Your task to perform on an android device: Search for seafood restaurants on Google Maps Image 0: 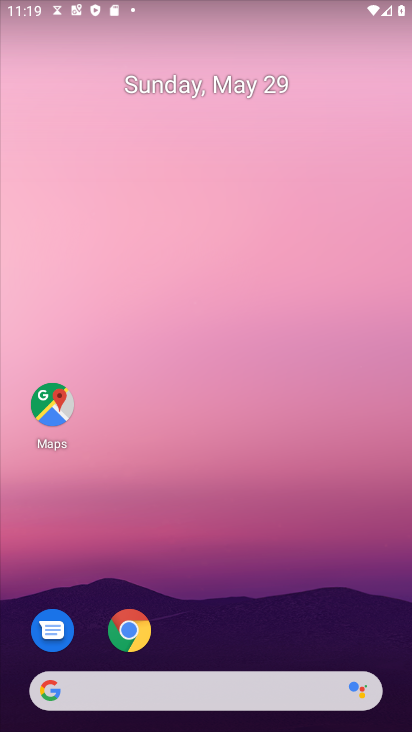
Step 0: click (69, 407)
Your task to perform on an android device: Search for seafood restaurants on Google Maps Image 1: 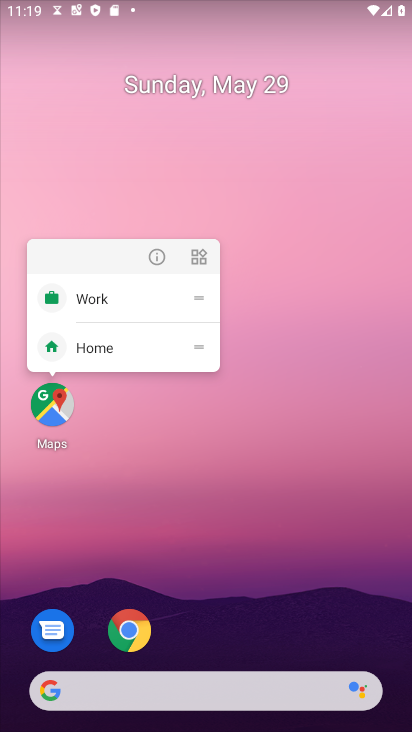
Step 1: click (67, 403)
Your task to perform on an android device: Search for seafood restaurants on Google Maps Image 2: 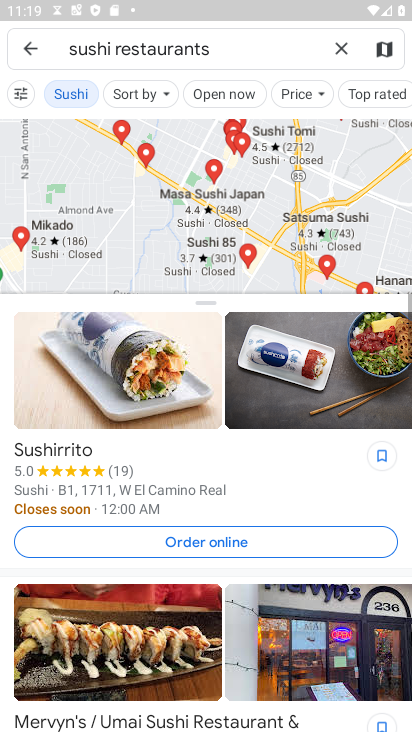
Step 2: click (343, 44)
Your task to perform on an android device: Search for seafood restaurants on Google Maps Image 3: 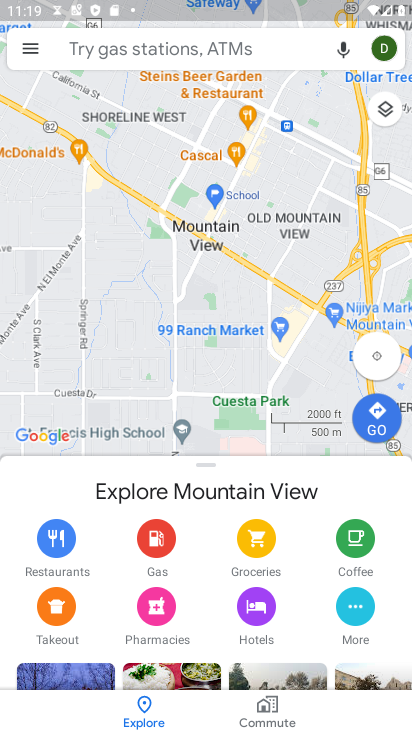
Step 3: click (278, 42)
Your task to perform on an android device: Search for seafood restaurants on Google Maps Image 4: 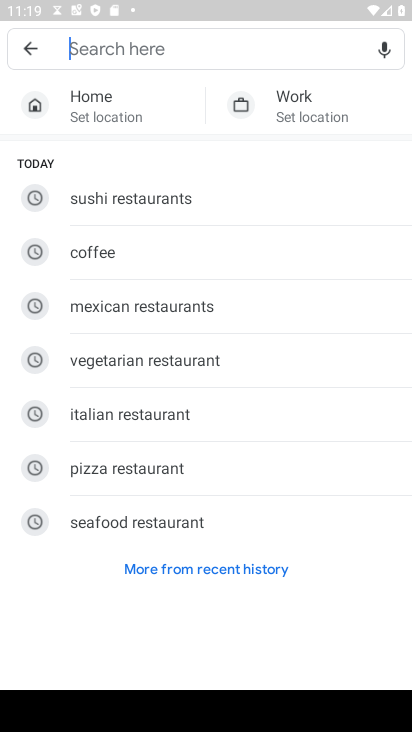
Step 4: click (152, 515)
Your task to perform on an android device: Search for seafood restaurants on Google Maps Image 5: 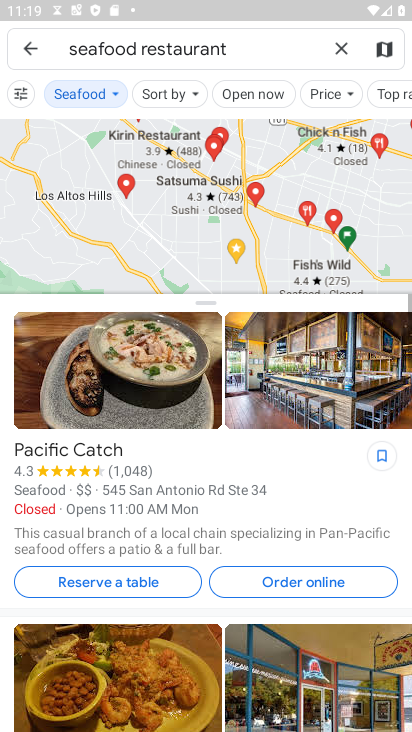
Step 5: task complete